Your task to perform on an android device: show emergency info Image 0: 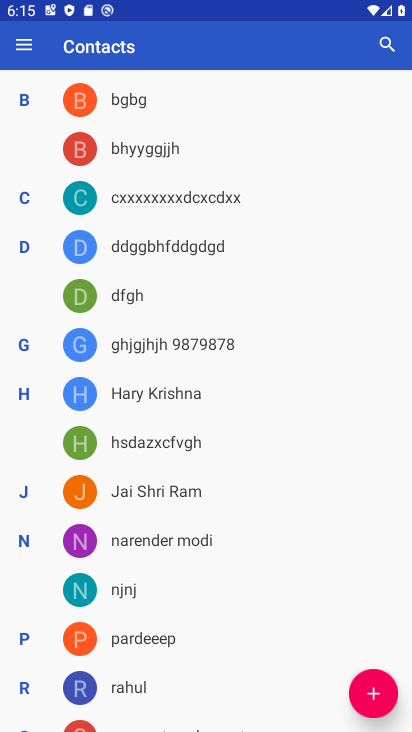
Step 0: press home button
Your task to perform on an android device: show emergency info Image 1: 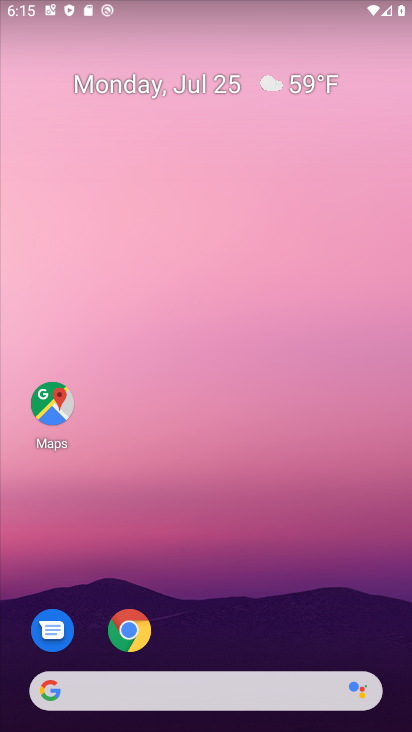
Step 1: drag from (189, 601) to (229, 201)
Your task to perform on an android device: show emergency info Image 2: 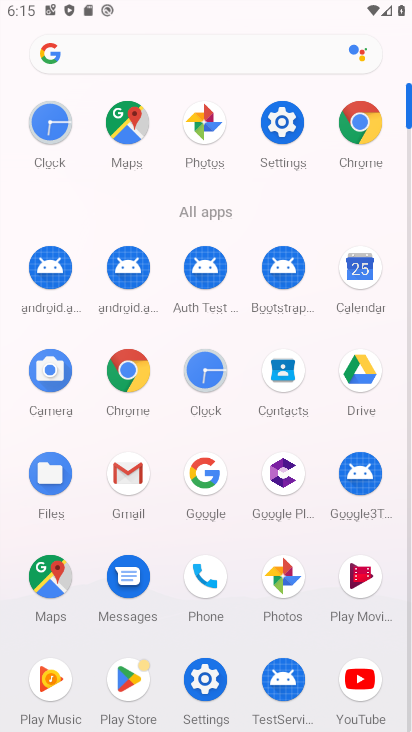
Step 2: click (281, 126)
Your task to perform on an android device: show emergency info Image 3: 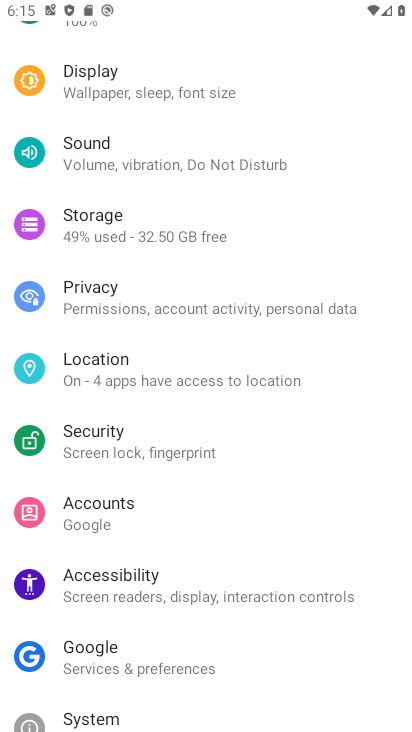
Step 3: drag from (146, 560) to (175, 377)
Your task to perform on an android device: show emergency info Image 4: 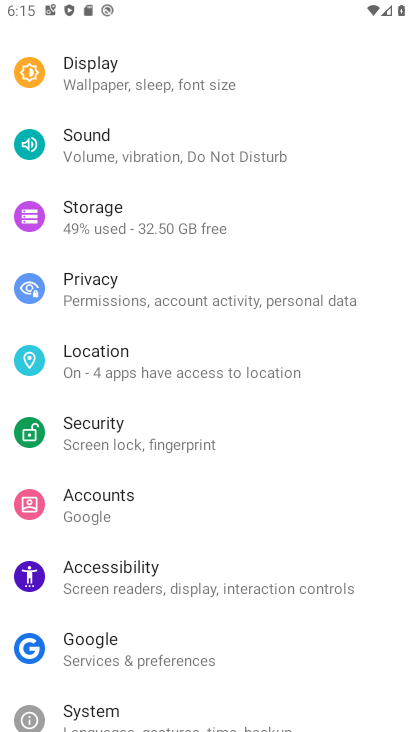
Step 4: drag from (182, 606) to (216, 329)
Your task to perform on an android device: show emergency info Image 5: 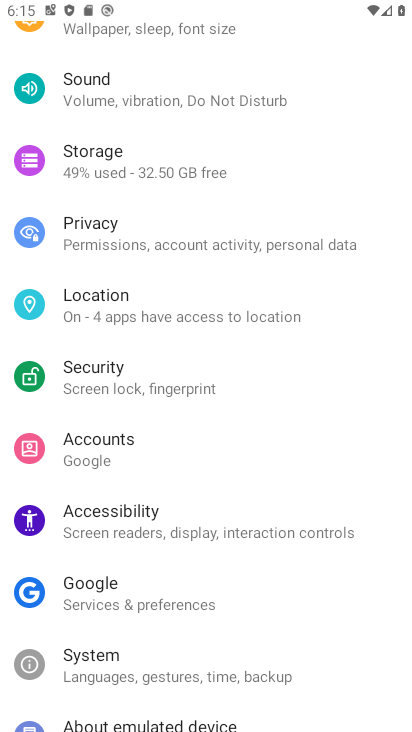
Step 5: drag from (171, 658) to (187, 382)
Your task to perform on an android device: show emergency info Image 6: 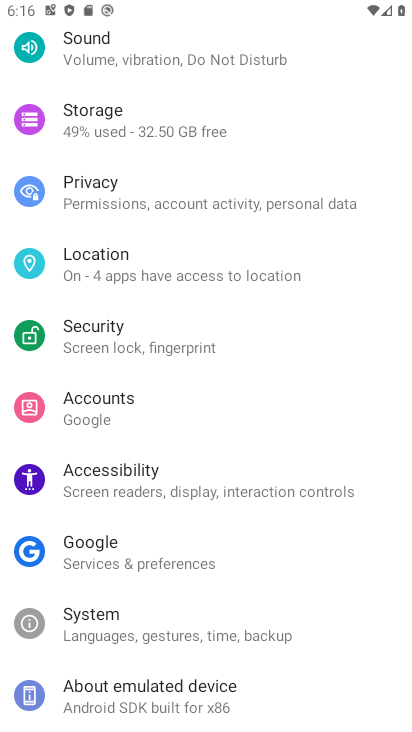
Step 6: click (128, 691)
Your task to perform on an android device: show emergency info Image 7: 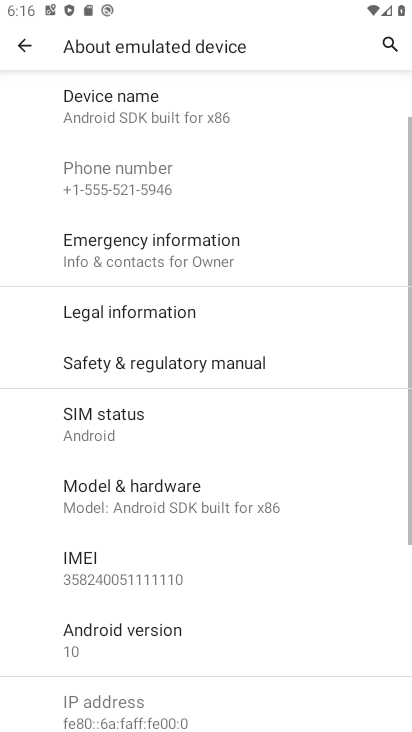
Step 7: click (197, 256)
Your task to perform on an android device: show emergency info Image 8: 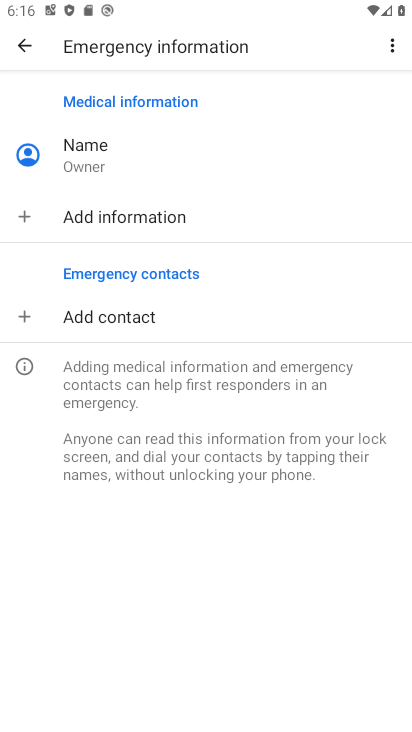
Step 8: task complete